Your task to perform on an android device: turn on bluetooth scan Image 0: 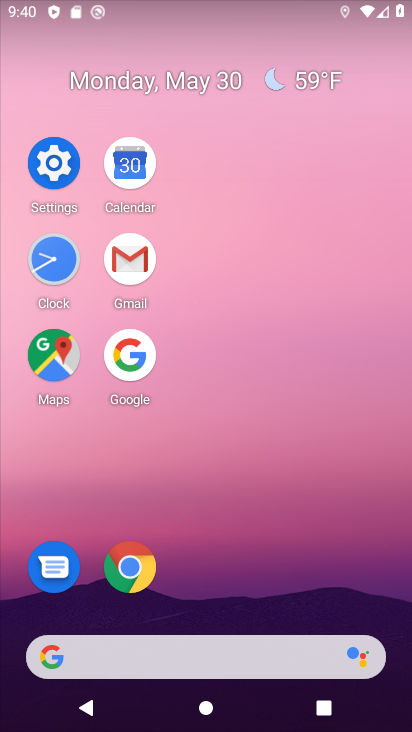
Step 0: click (37, 175)
Your task to perform on an android device: turn on bluetooth scan Image 1: 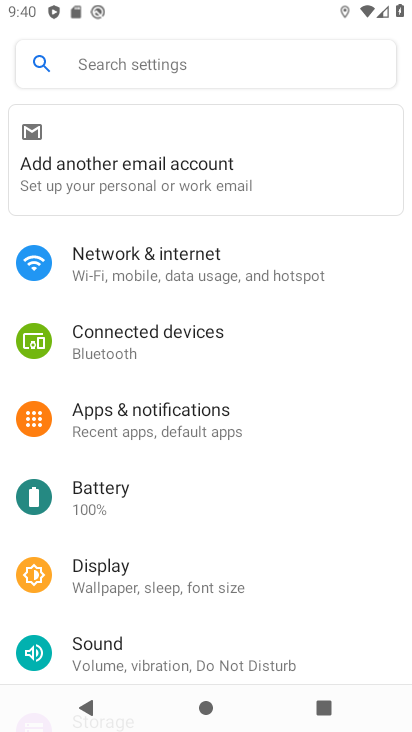
Step 1: drag from (223, 642) to (334, 230)
Your task to perform on an android device: turn on bluetooth scan Image 2: 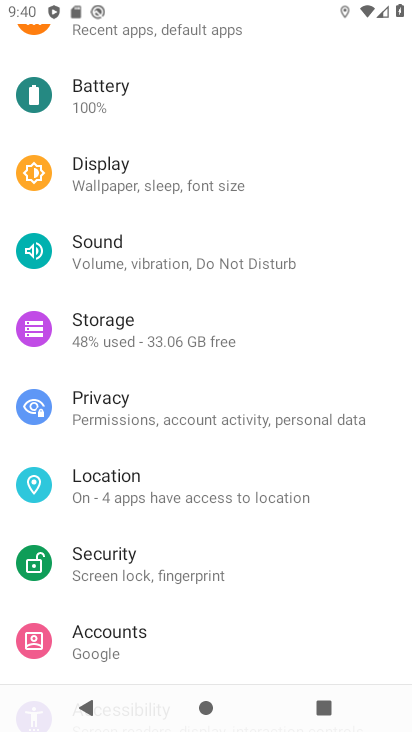
Step 2: click (266, 496)
Your task to perform on an android device: turn on bluetooth scan Image 3: 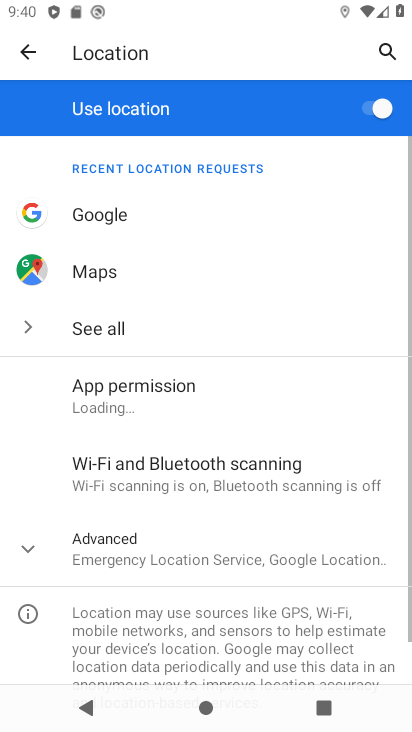
Step 3: click (255, 546)
Your task to perform on an android device: turn on bluetooth scan Image 4: 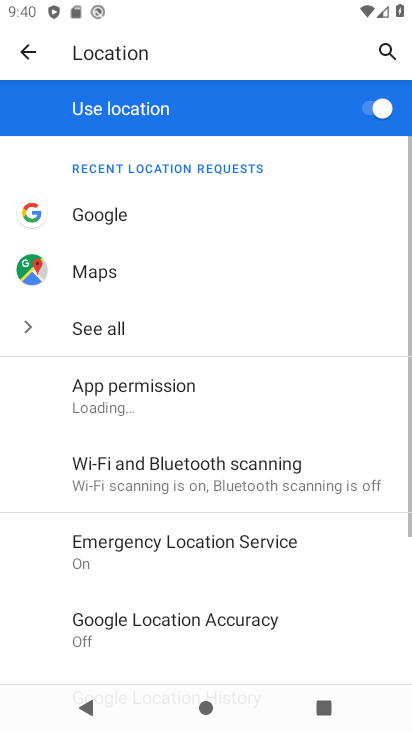
Step 4: drag from (350, 585) to (372, 188)
Your task to perform on an android device: turn on bluetooth scan Image 5: 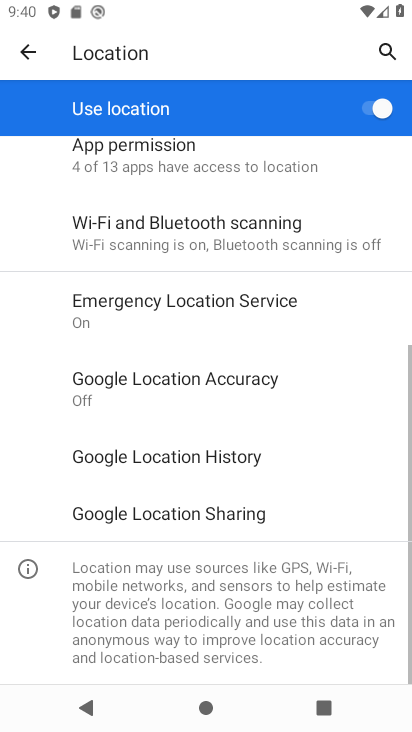
Step 5: drag from (347, 187) to (250, 571)
Your task to perform on an android device: turn on bluetooth scan Image 6: 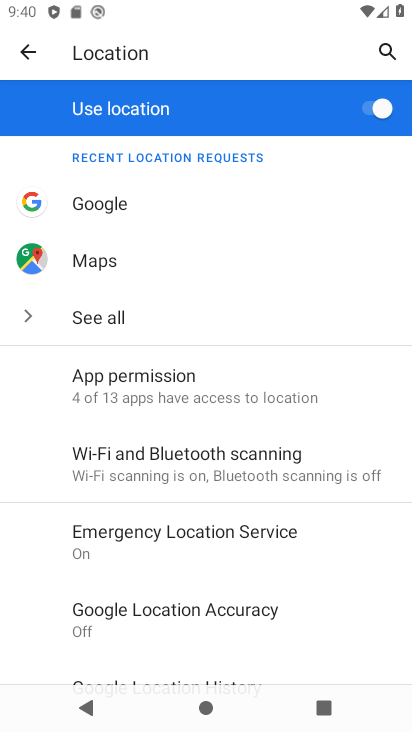
Step 6: click (256, 464)
Your task to perform on an android device: turn on bluetooth scan Image 7: 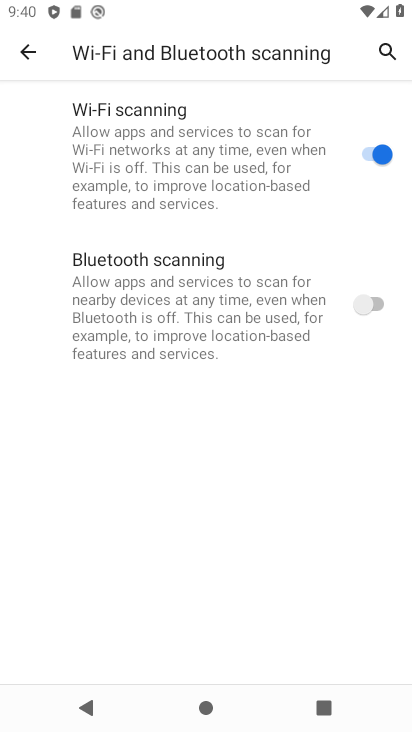
Step 7: click (369, 316)
Your task to perform on an android device: turn on bluetooth scan Image 8: 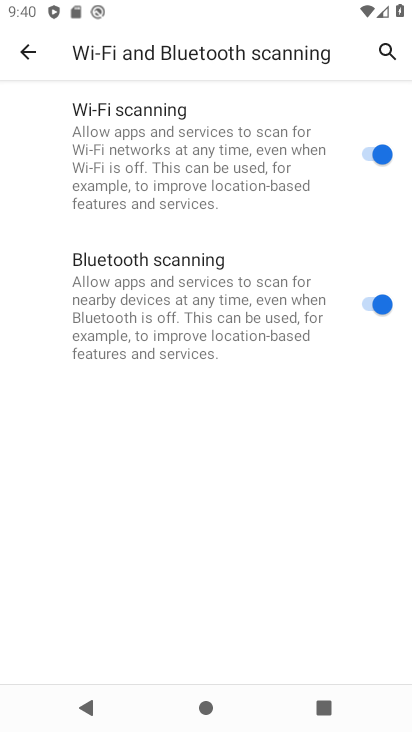
Step 8: task complete